Your task to perform on an android device: Clear all items from cart on newegg. Image 0: 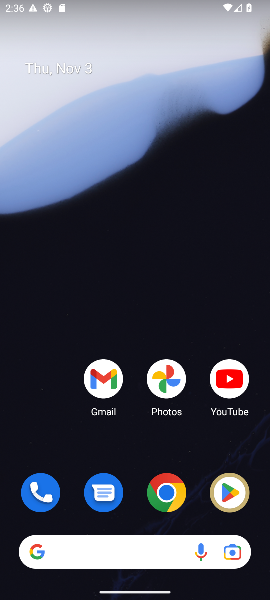
Step 0: click (170, 495)
Your task to perform on an android device: Clear all items from cart on newegg. Image 1: 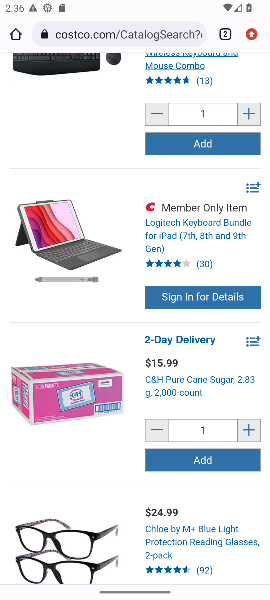
Step 1: click (97, 39)
Your task to perform on an android device: Clear all items from cart on newegg. Image 2: 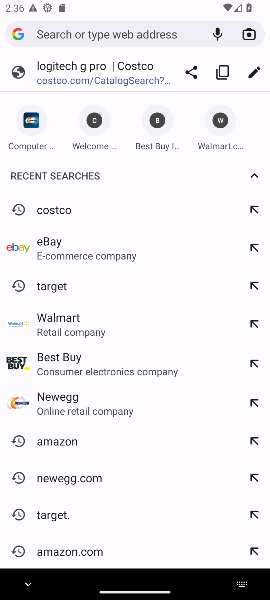
Step 2: type "newegg"
Your task to perform on an android device: Clear all items from cart on newegg. Image 3: 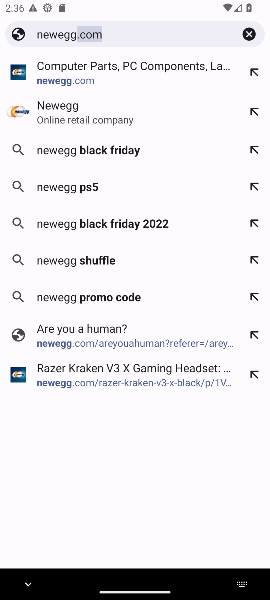
Step 3: click (62, 77)
Your task to perform on an android device: Clear all items from cart on newegg. Image 4: 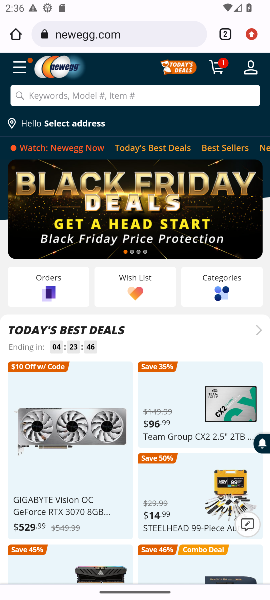
Step 4: click (54, 94)
Your task to perform on an android device: Clear all items from cart on newegg. Image 5: 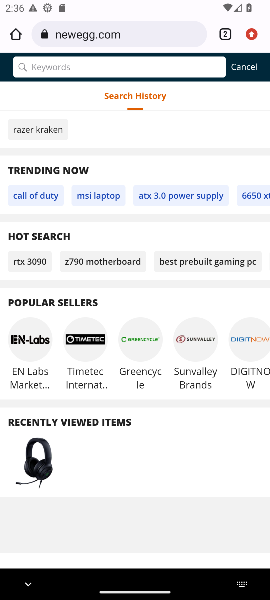
Step 5: click (230, 67)
Your task to perform on an android device: Clear all items from cart on newegg. Image 6: 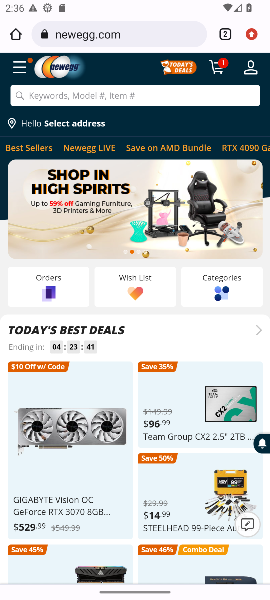
Step 6: click (221, 66)
Your task to perform on an android device: Clear all items from cart on newegg. Image 7: 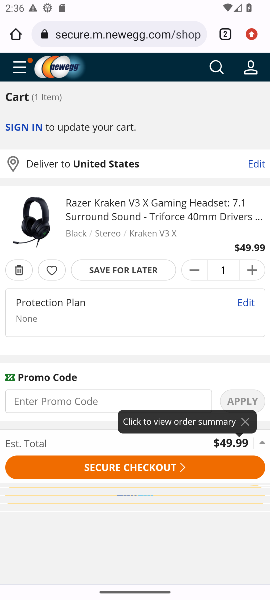
Step 7: click (18, 277)
Your task to perform on an android device: Clear all items from cart on newegg. Image 8: 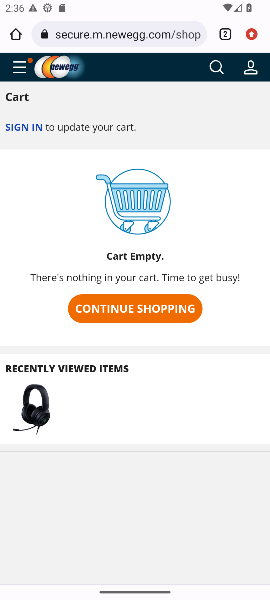
Step 8: click (94, 313)
Your task to perform on an android device: Clear all items from cart on newegg. Image 9: 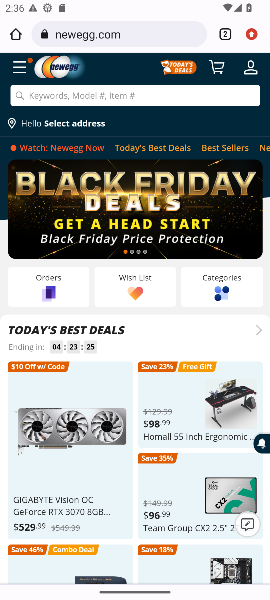
Step 9: task complete